Your task to perform on an android device: Open privacy settings Image 0: 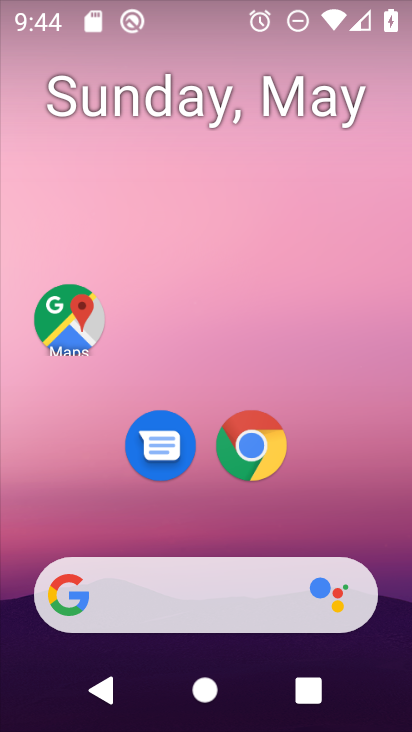
Step 0: drag from (335, 420) to (342, 40)
Your task to perform on an android device: Open privacy settings Image 1: 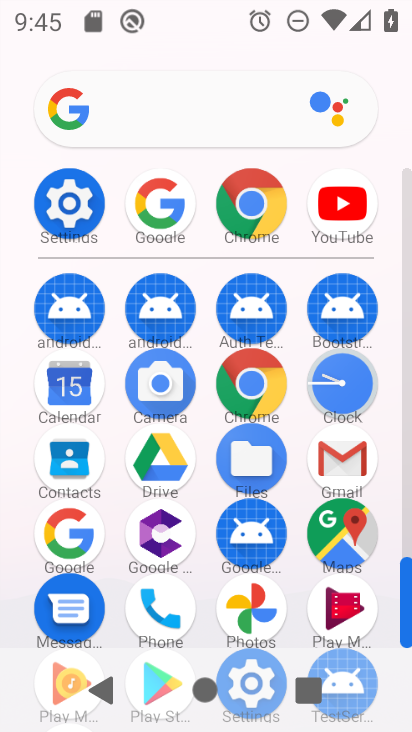
Step 1: click (75, 222)
Your task to perform on an android device: Open privacy settings Image 2: 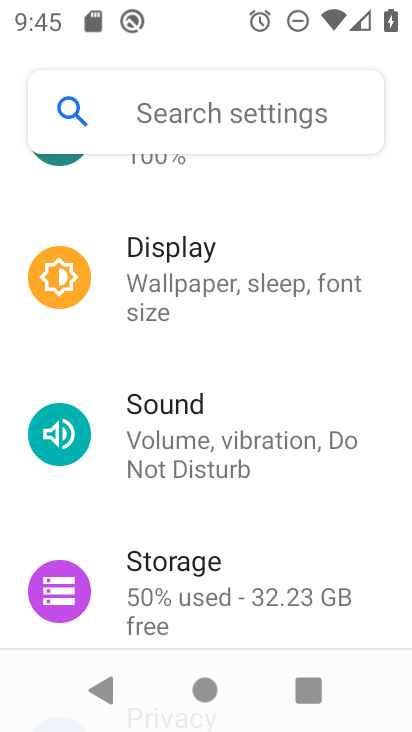
Step 2: drag from (236, 502) to (272, 168)
Your task to perform on an android device: Open privacy settings Image 3: 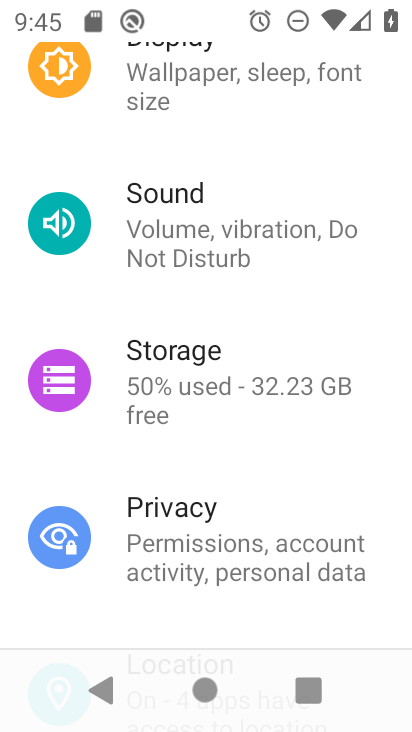
Step 3: click (213, 519)
Your task to perform on an android device: Open privacy settings Image 4: 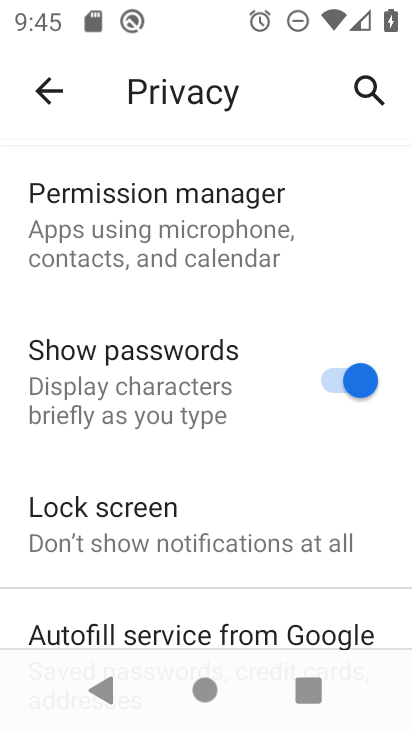
Step 4: task complete